Your task to perform on an android device: Go to display settings Image 0: 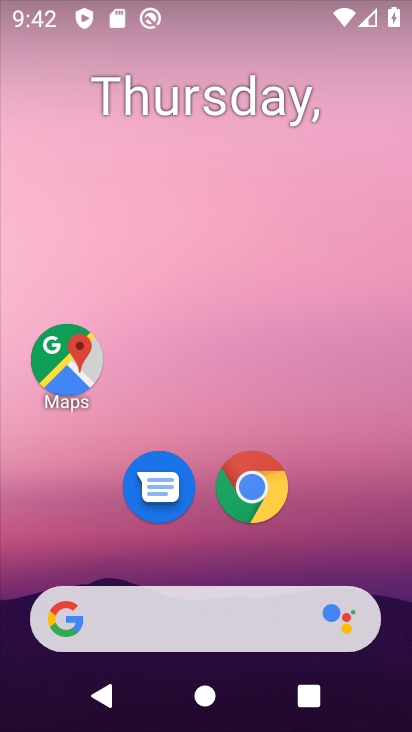
Step 0: drag from (319, 479) to (142, 218)
Your task to perform on an android device: Go to display settings Image 1: 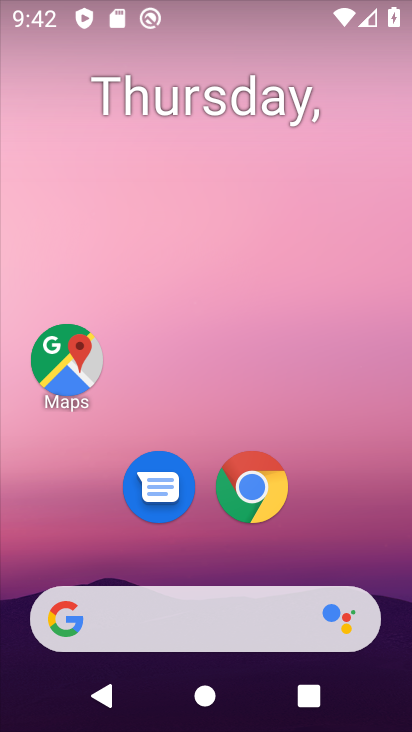
Step 1: drag from (327, 511) to (216, 51)
Your task to perform on an android device: Go to display settings Image 2: 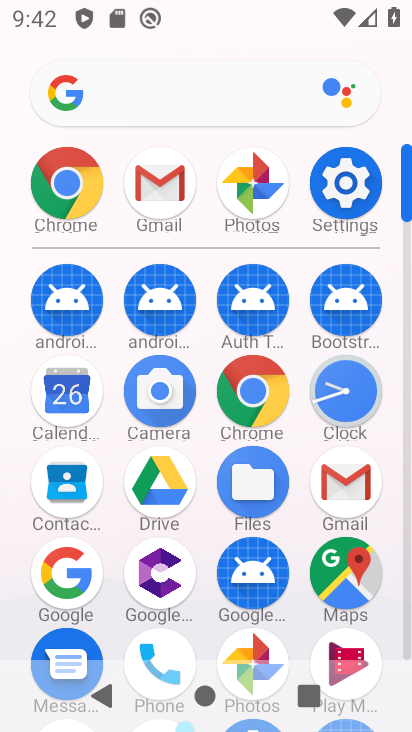
Step 2: click (343, 184)
Your task to perform on an android device: Go to display settings Image 3: 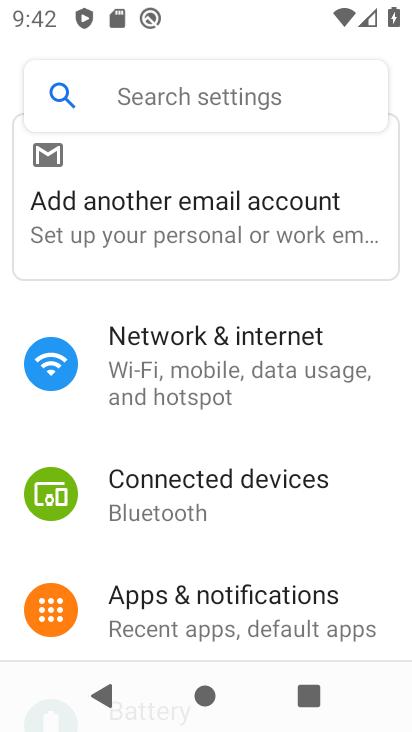
Step 3: drag from (218, 537) to (193, 238)
Your task to perform on an android device: Go to display settings Image 4: 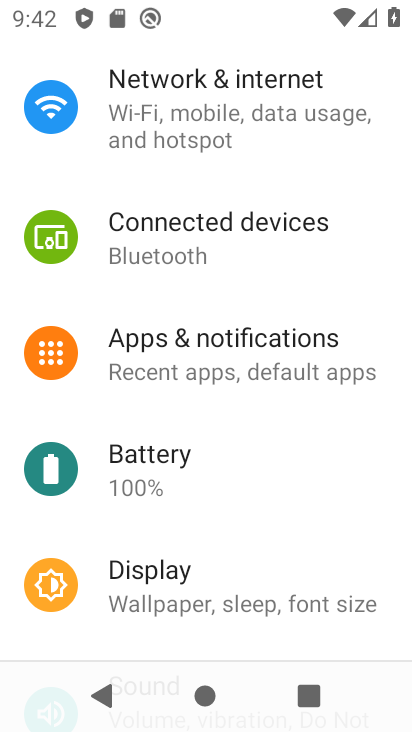
Step 4: click (170, 586)
Your task to perform on an android device: Go to display settings Image 5: 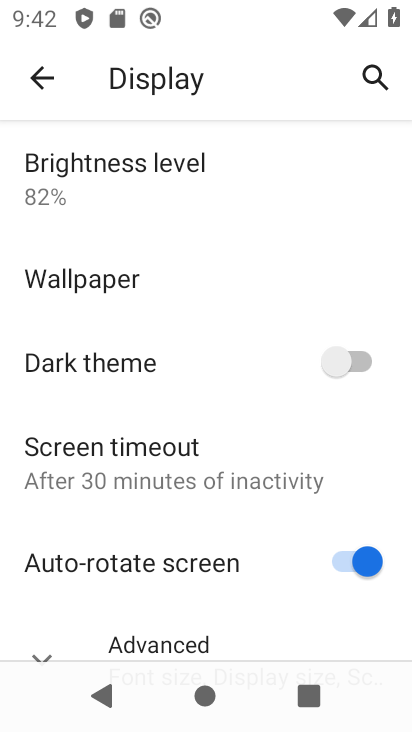
Step 5: click (159, 639)
Your task to perform on an android device: Go to display settings Image 6: 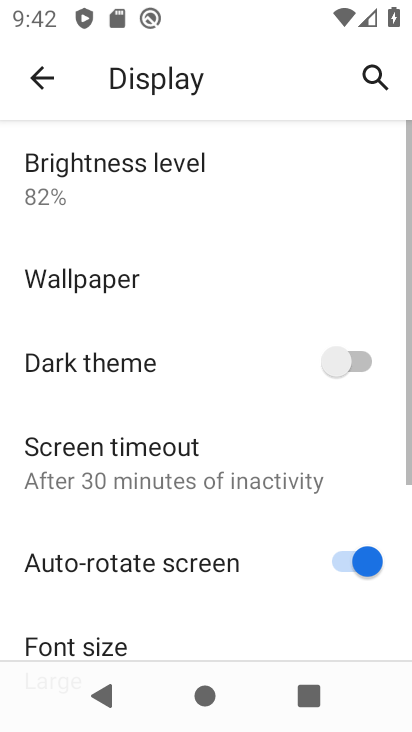
Step 6: task complete